Your task to perform on an android device: Go to display settings Image 0: 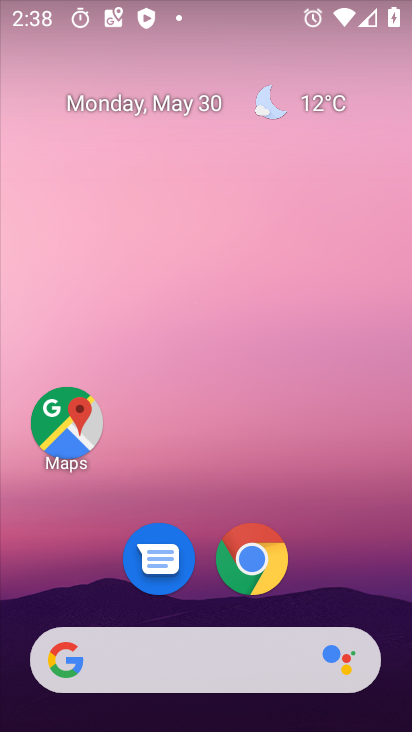
Step 0: drag from (193, 419) to (232, 26)
Your task to perform on an android device: Go to display settings Image 1: 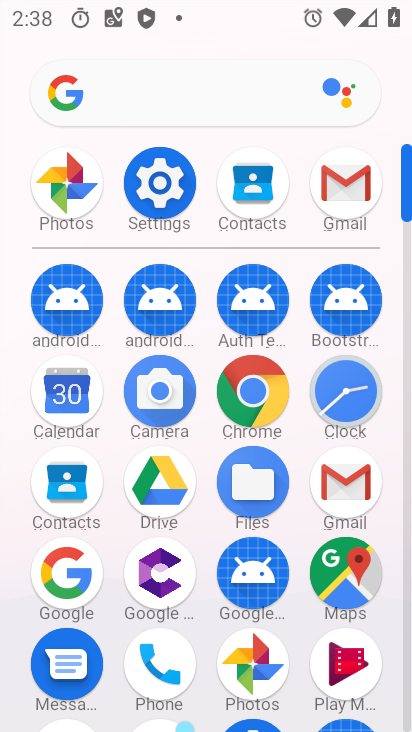
Step 1: click (159, 185)
Your task to perform on an android device: Go to display settings Image 2: 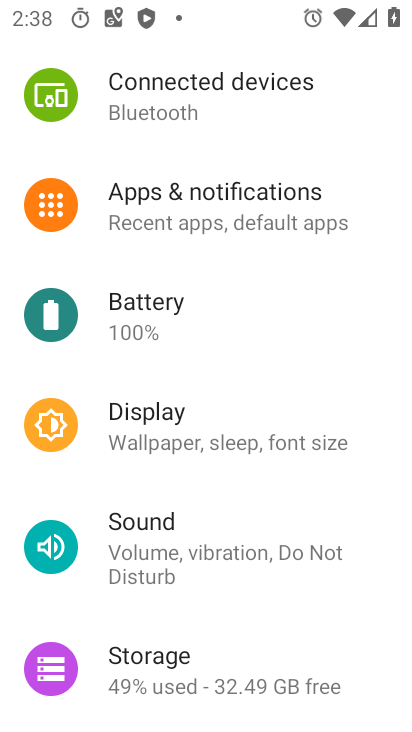
Step 2: click (162, 421)
Your task to perform on an android device: Go to display settings Image 3: 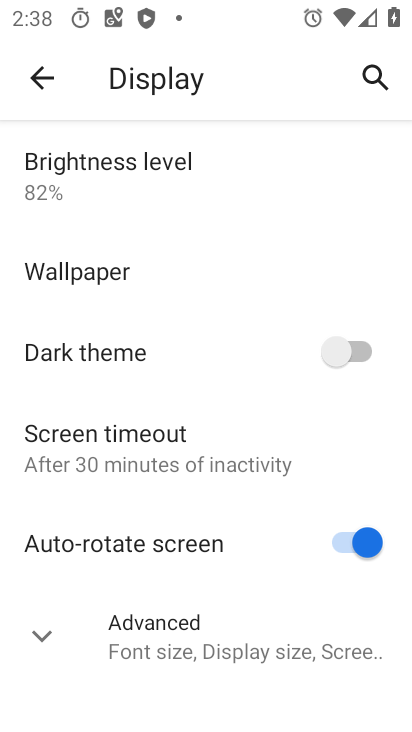
Step 3: task complete